Your task to perform on an android device: read, delete, or share a saved page in the chrome app Image 0: 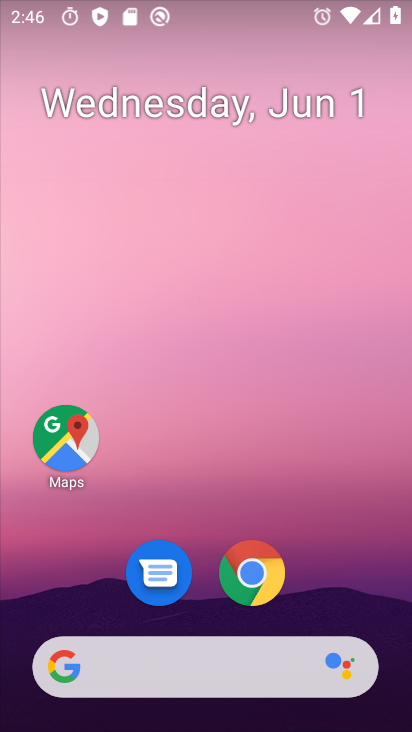
Step 0: click (259, 578)
Your task to perform on an android device: read, delete, or share a saved page in the chrome app Image 1: 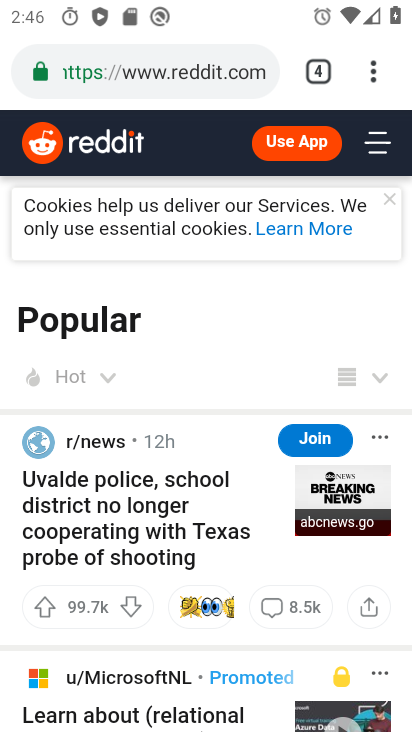
Step 1: drag from (372, 73) to (178, 453)
Your task to perform on an android device: read, delete, or share a saved page in the chrome app Image 2: 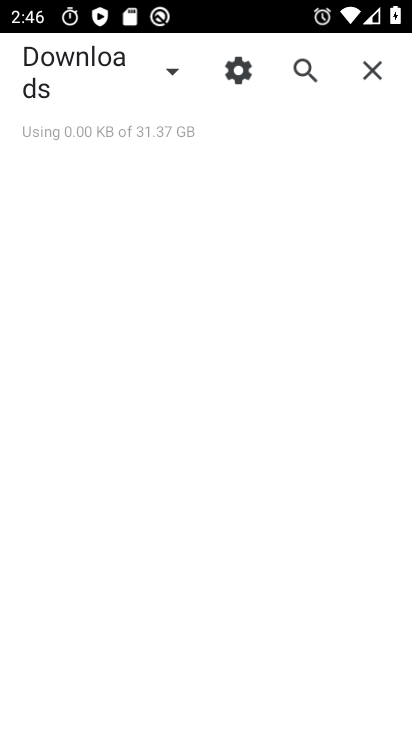
Step 2: click (141, 77)
Your task to perform on an android device: read, delete, or share a saved page in the chrome app Image 3: 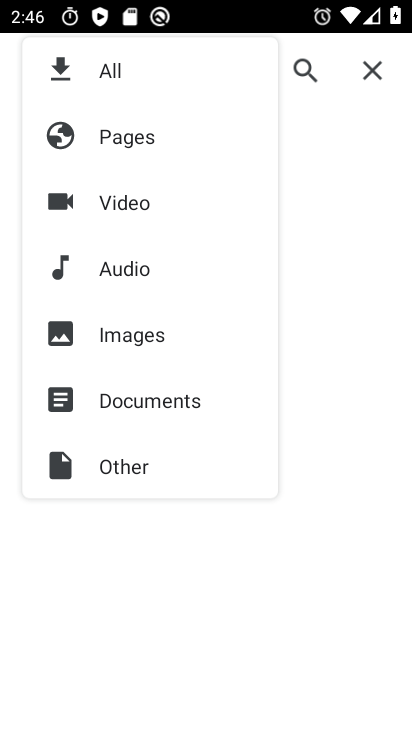
Step 3: click (142, 152)
Your task to perform on an android device: read, delete, or share a saved page in the chrome app Image 4: 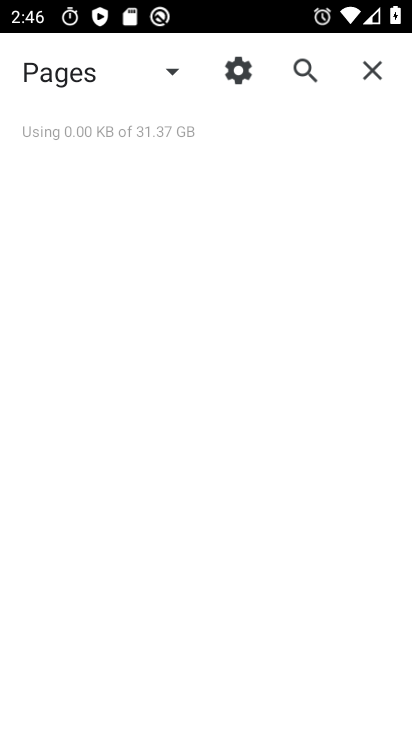
Step 4: task complete